Your task to perform on an android device: Open the Play Movies app and select the watchlist tab. Image 0: 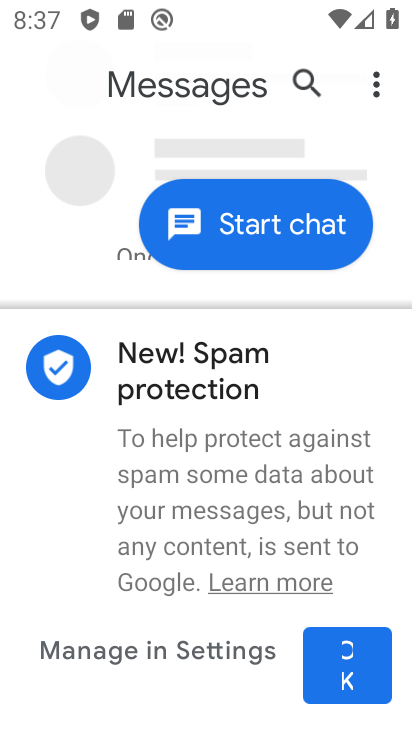
Step 0: press home button
Your task to perform on an android device: Open the Play Movies app and select the watchlist tab. Image 1: 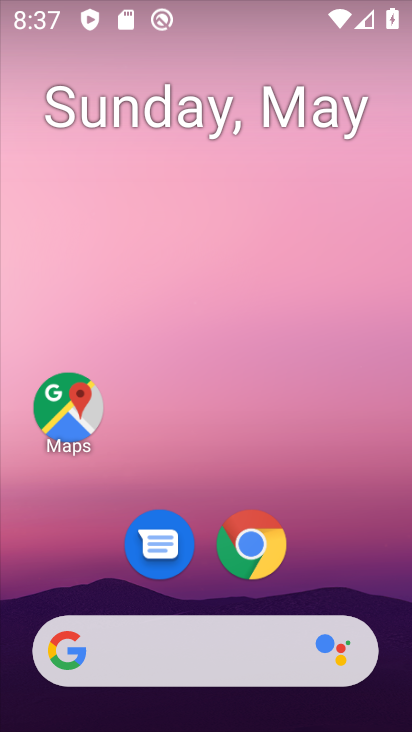
Step 1: drag from (383, 579) to (411, 312)
Your task to perform on an android device: Open the Play Movies app and select the watchlist tab. Image 2: 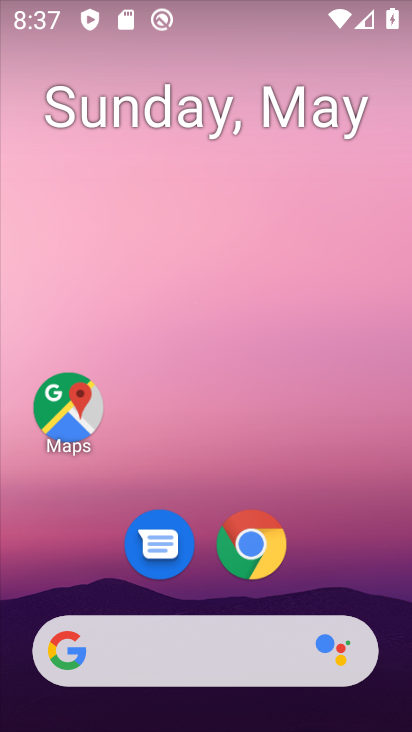
Step 2: drag from (391, 632) to (407, 96)
Your task to perform on an android device: Open the Play Movies app and select the watchlist tab. Image 3: 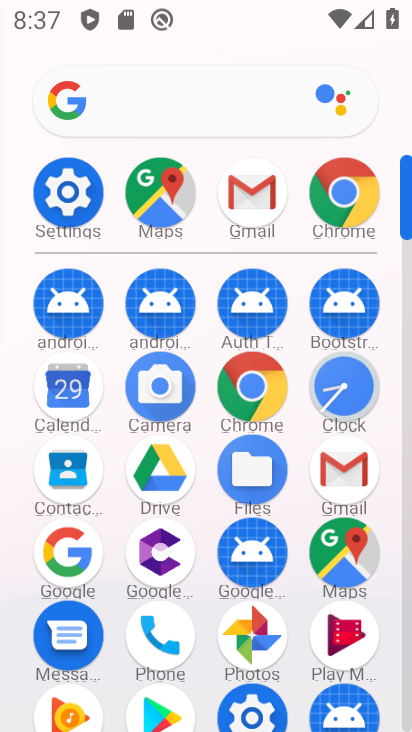
Step 3: click (344, 632)
Your task to perform on an android device: Open the Play Movies app and select the watchlist tab. Image 4: 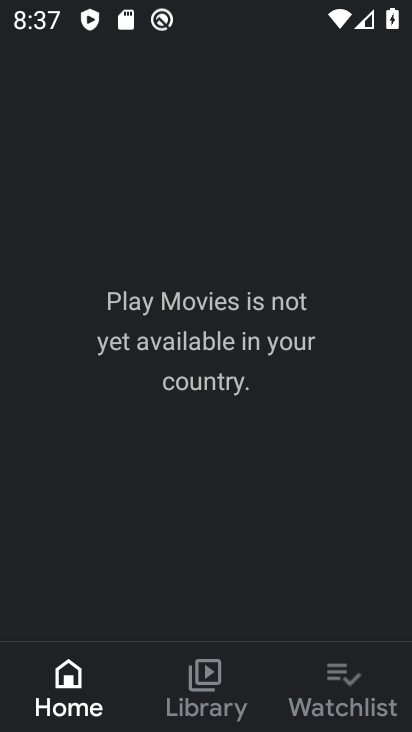
Step 4: click (343, 692)
Your task to perform on an android device: Open the Play Movies app and select the watchlist tab. Image 5: 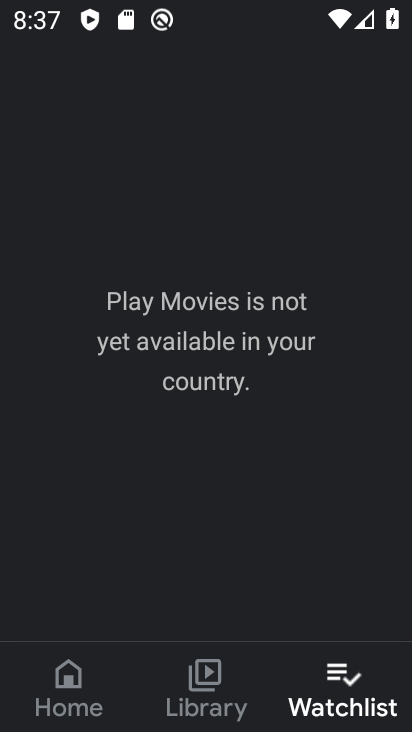
Step 5: task complete